Your task to perform on an android device: Open Youtube and go to "Your channel" Image 0: 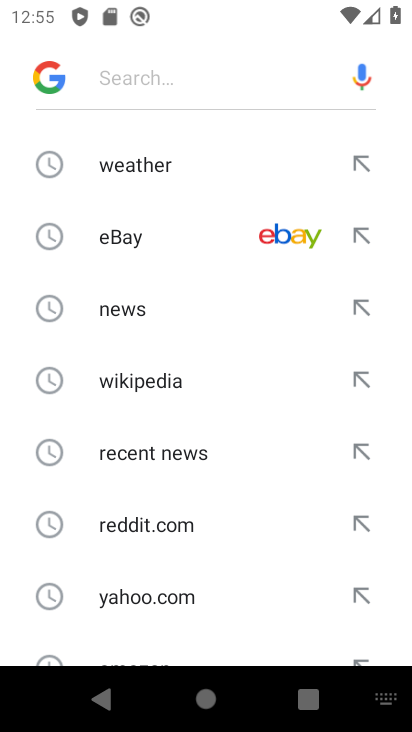
Step 0: press home button
Your task to perform on an android device: Open Youtube and go to "Your channel" Image 1: 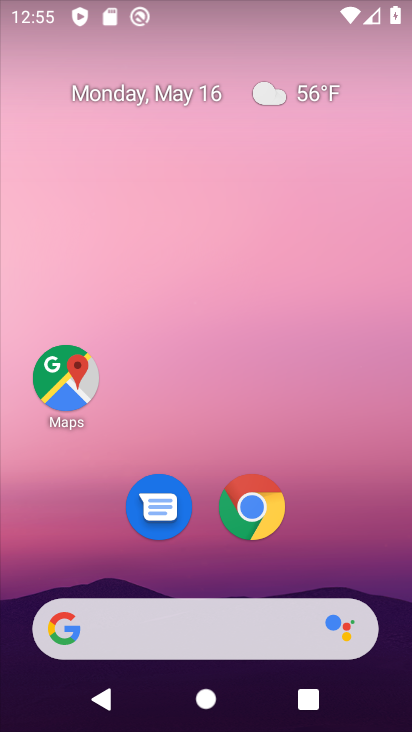
Step 1: drag from (214, 575) to (215, 135)
Your task to perform on an android device: Open Youtube and go to "Your channel" Image 2: 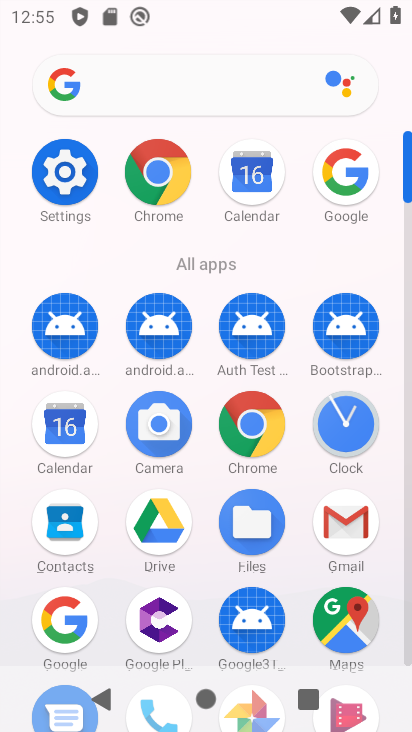
Step 2: drag from (291, 549) to (288, 232)
Your task to perform on an android device: Open Youtube and go to "Your channel" Image 3: 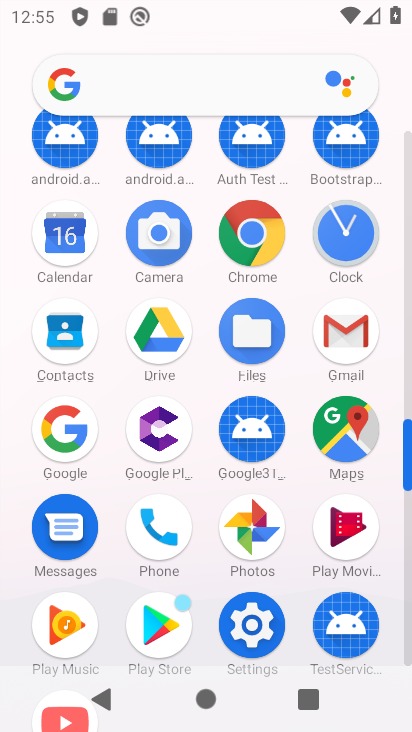
Step 3: drag from (261, 502) to (265, 191)
Your task to perform on an android device: Open Youtube and go to "Your channel" Image 4: 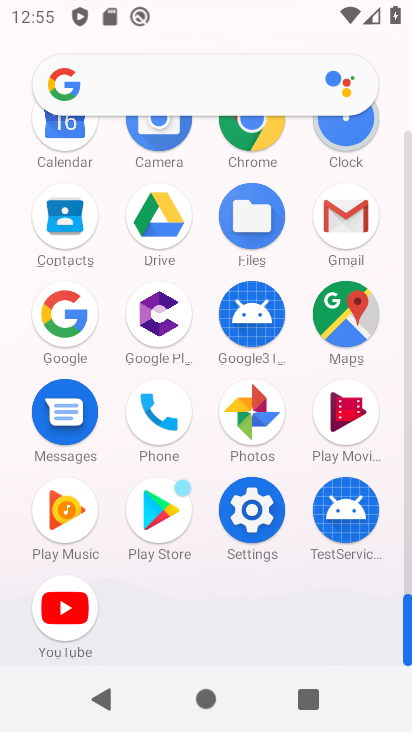
Step 4: click (71, 616)
Your task to perform on an android device: Open Youtube and go to "Your channel" Image 5: 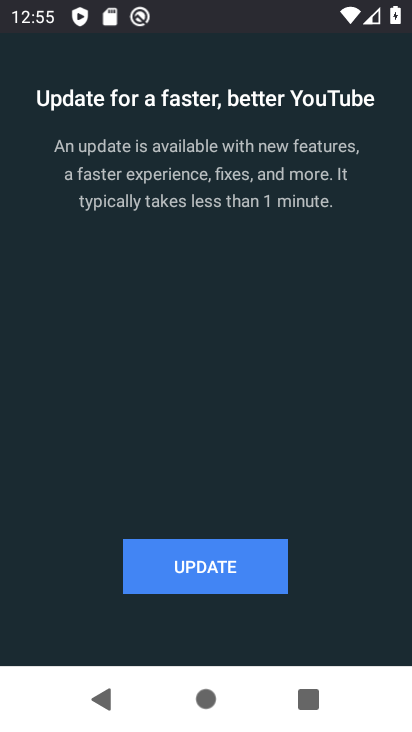
Step 5: click (259, 561)
Your task to perform on an android device: Open Youtube and go to "Your channel" Image 6: 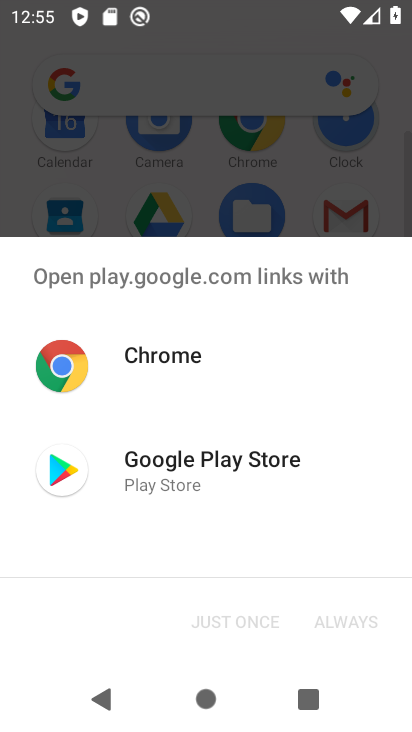
Step 6: click (225, 482)
Your task to perform on an android device: Open Youtube and go to "Your channel" Image 7: 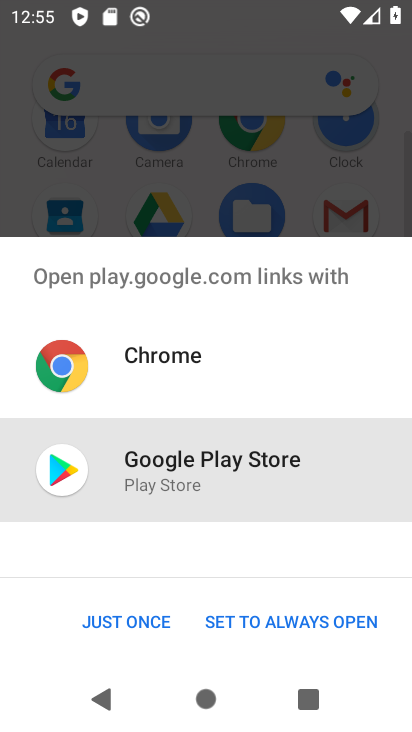
Step 7: click (115, 619)
Your task to perform on an android device: Open Youtube and go to "Your channel" Image 8: 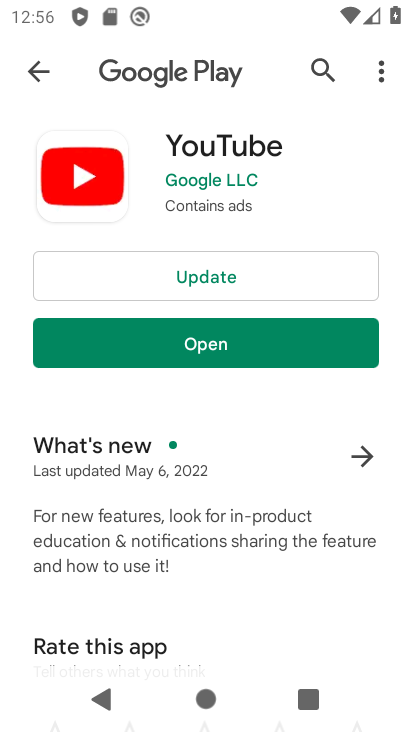
Step 8: click (206, 286)
Your task to perform on an android device: Open Youtube and go to "Your channel" Image 9: 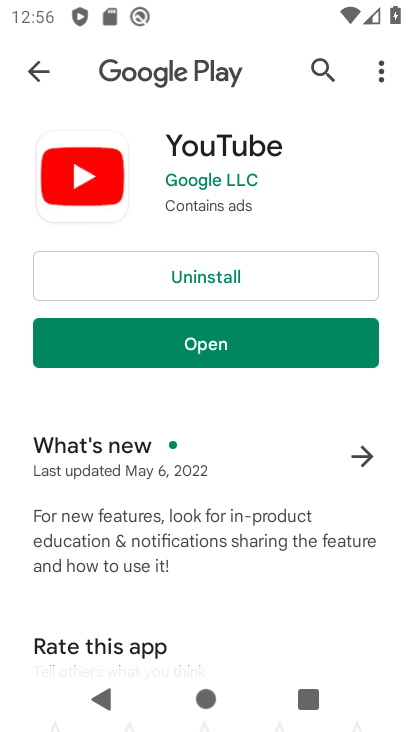
Step 9: click (251, 346)
Your task to perform on an android device: Open Youtube and go to "Your channel" Image 10: 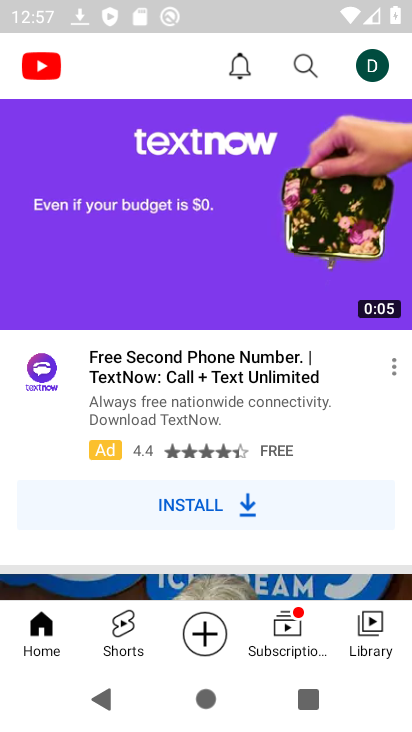
Step 10: click (376, 71)
Your task to perform on an android device: Open Youtube and go to "Your channel" Image 11: 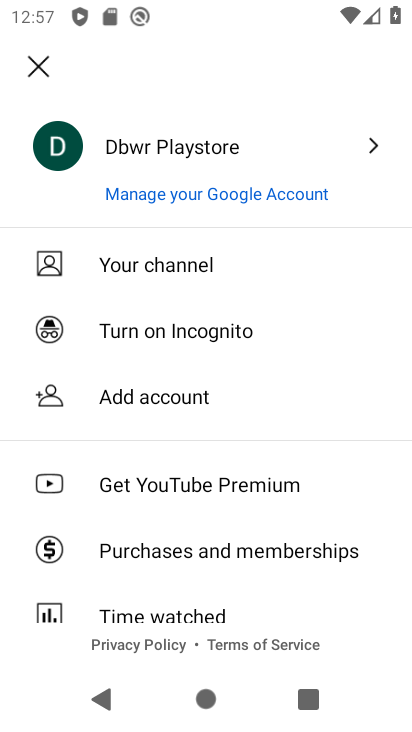
Step 11: drag from (223, 537) to (243, 243)
Your task to perform on an android device: Open Youtube and go to "Your channel" Image 12: 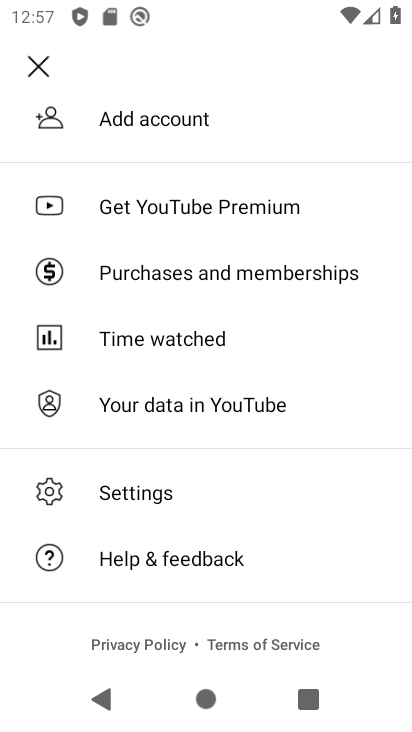
Step 12: drag from (245, 456) to (265, 212)
Your task to perform on an android device: Open Youtube and go to "Your channel" Image 13: 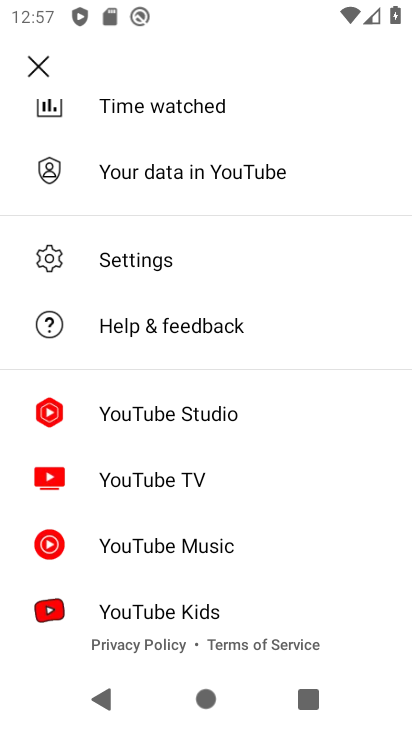
Step 13: drag from (215, 193) to (215, 519)
Your task to perform on an android device: Open Youtube and go to "Your channel" Image 14: 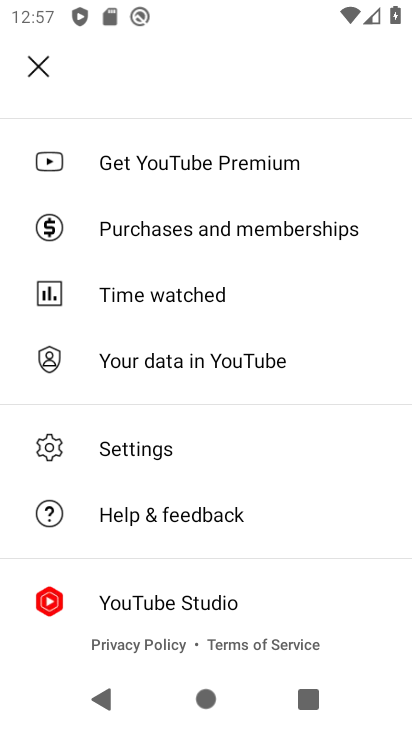
Step 14: drag from (187, 181) to (214, 455)
Your task to perform on an android device: Open Youtube and go to "Your channel" Image 15: 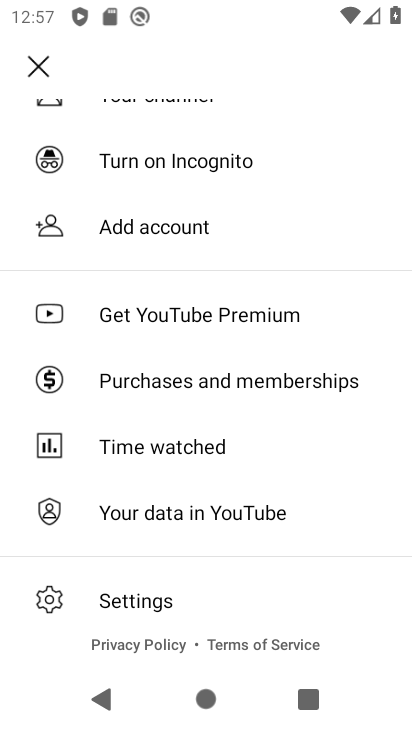
Step 15: drag from (205, 162) to (219, 429)
Your task to perform on an android device: Open Youtube and go to "Your channel" Image 16: 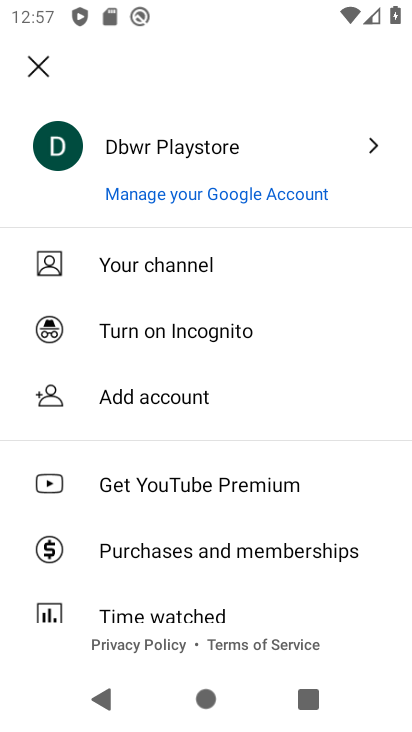
Step 16: drag from (195, 232) to (218, 428)
Your task to perform on an android device: Open Youtube and go to "Your channel" Image 17: 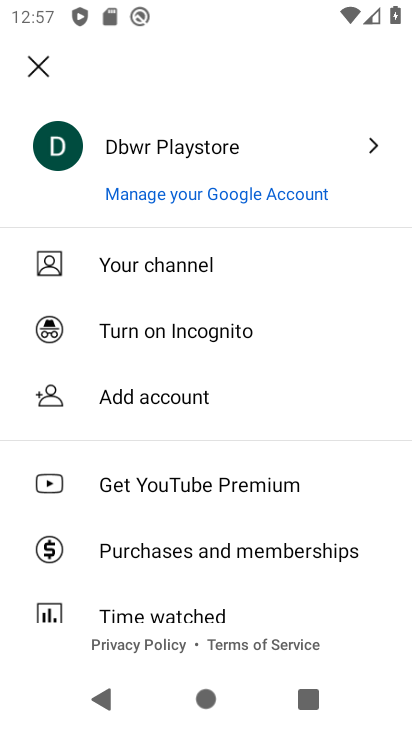
Step 17: click (53, 54)
Your task to perform on an android device: Open Youtube and go to "Your channel" Image 18: 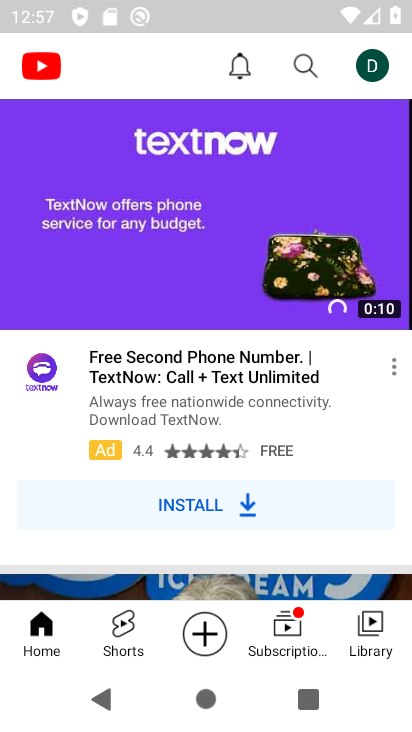
Step 18: click (361, 69)
Your task to perform on an android device: Open Youtube and go to "Your channel" Image 19: 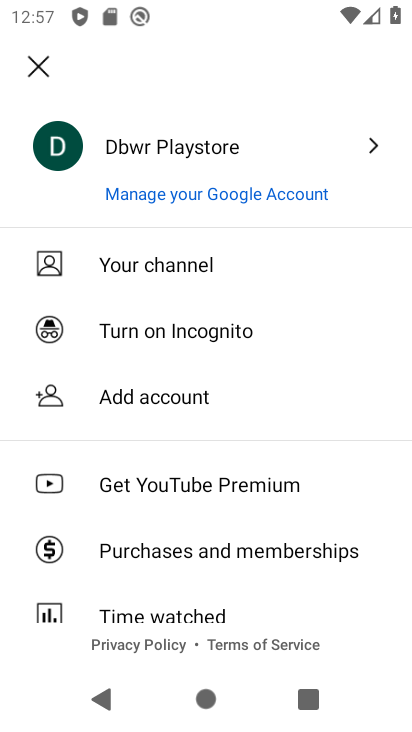
Step 19: drag from (219, 619) to (227, 409)
Your task to perform on an android device: Open Youtube and go to "Your channel" Image 20: 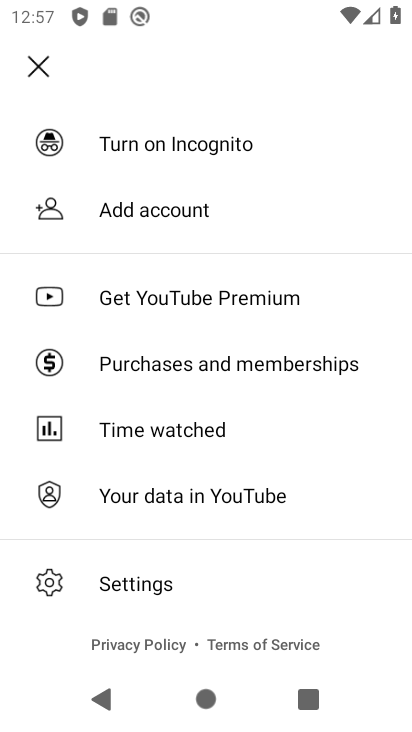
Step 20: click (210, 509)
Your task to perform on an android device: Open Youtube and go to "Your channel" Image 21: 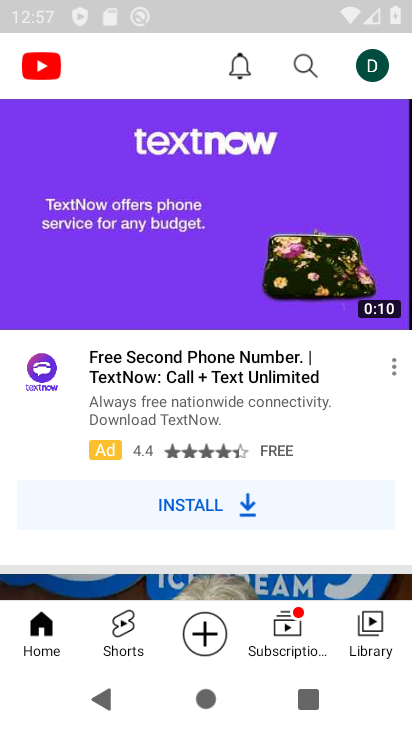
Step 21: drag from (195, 233) to (229, 511)
Your task to perform on an android device: Open Youtube and go to "Your channel" Image 22: 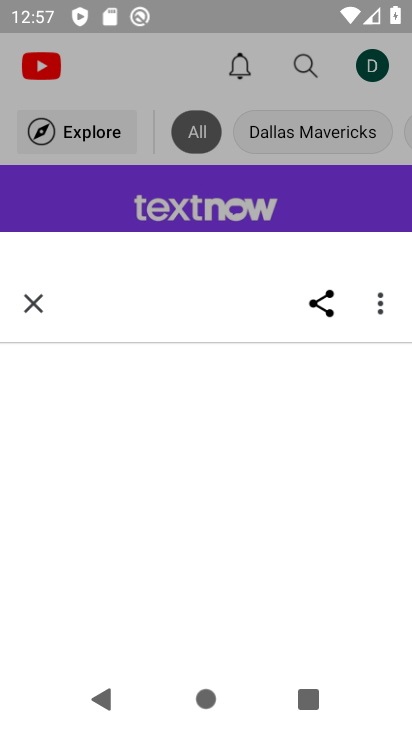
Step 22: click (361, 61)
Your task to perform on an android device: Open Youtube and go to "Your channel" Image 23: 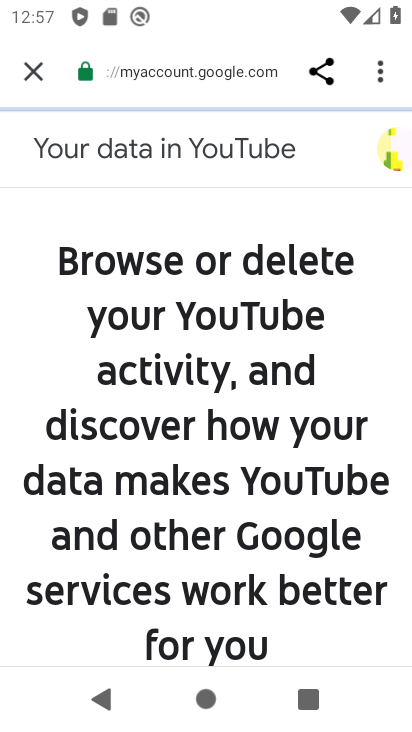
Step 23: press back button
Your task to perform on an android device: Open Youtube and go to "Your channel" Image 24: 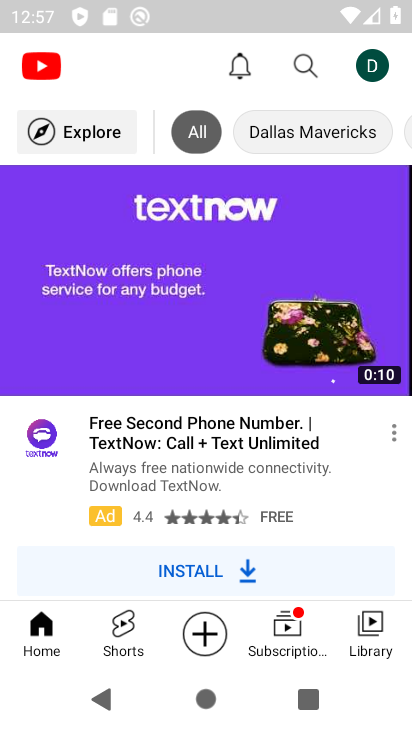
Step 24: click (361, 62)
Your task to perform on an android device: Open Youtube and go to "Your channel" Image 25: 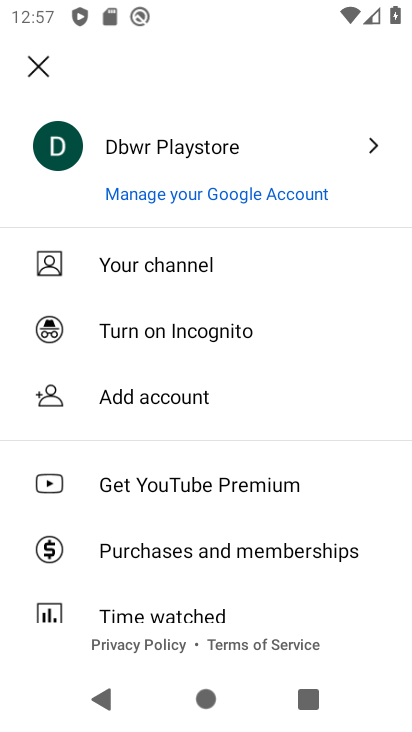
Step 25: click (188, 267)
Your task to perform on an android device: Open Youtube and go to "Your channel" Image 26: 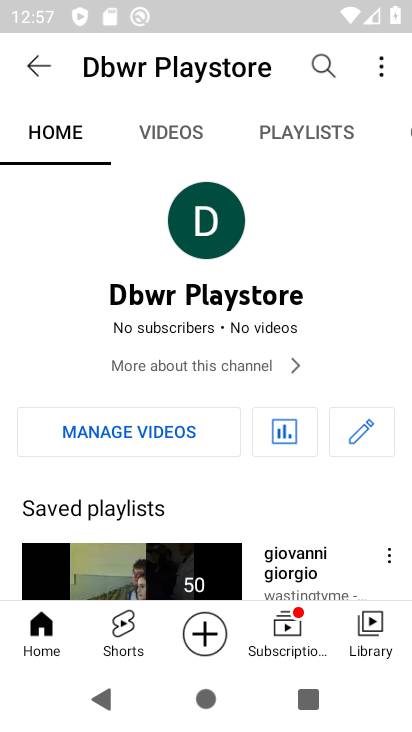
Step 26: task complete